Your task to perform on an android device: Where can I buy a nice beach cooler? Image 0: 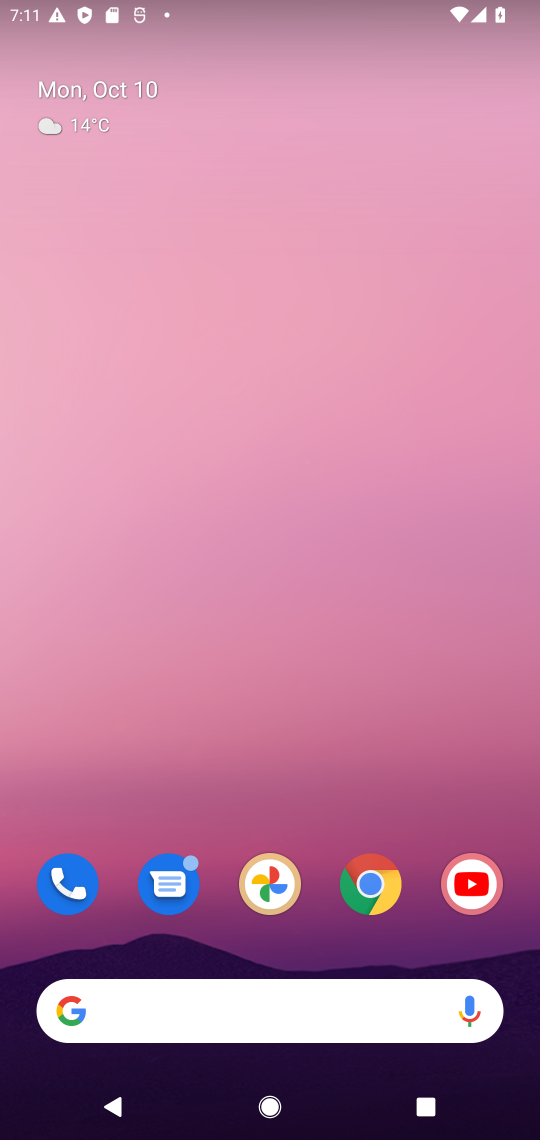
Step 0: click (342, 1005)
Your task to perform on an android device: Where can I buy a nice beach cooler? Image 1: 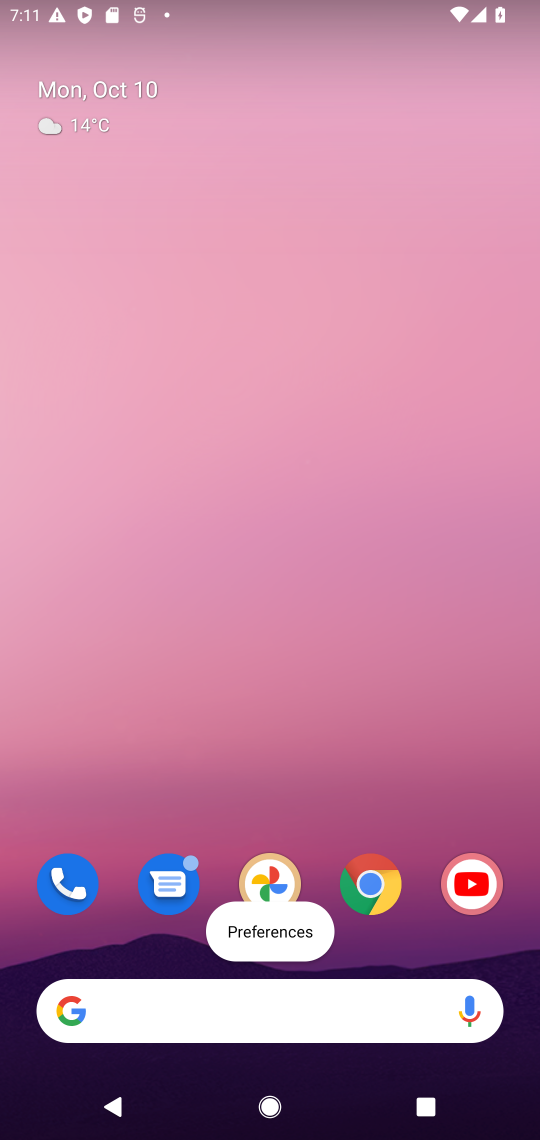
Step 1: drag from (302, 1052) to (305, 33)
Your task to perform on an android device: Where can I buy a nice beach cooler? Image 2: 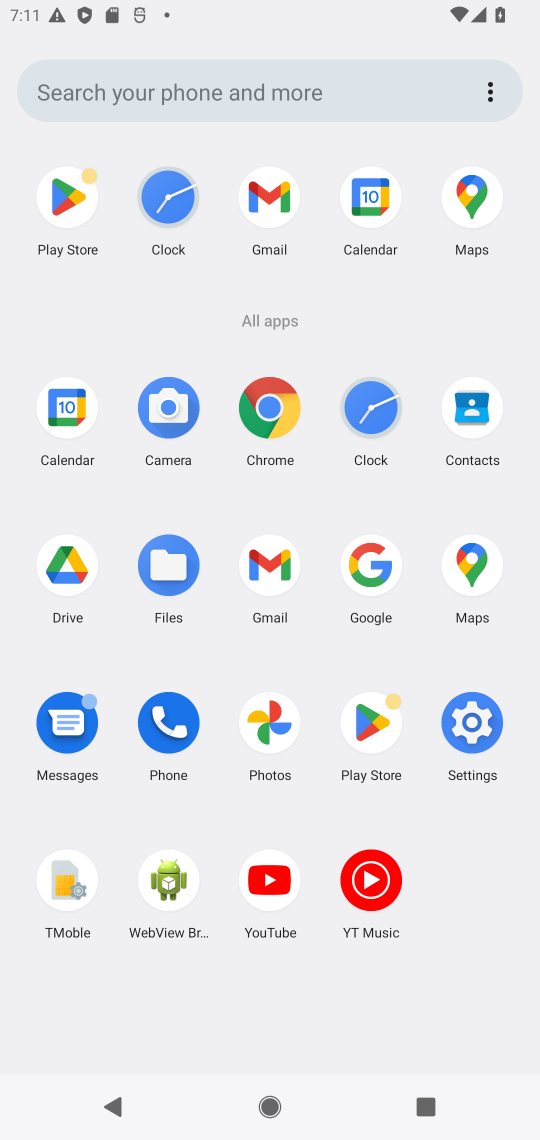
Step 2: click (243, 412)
Your task to perform on an android device: Where can I buy a nice beach cooler? Image 3: 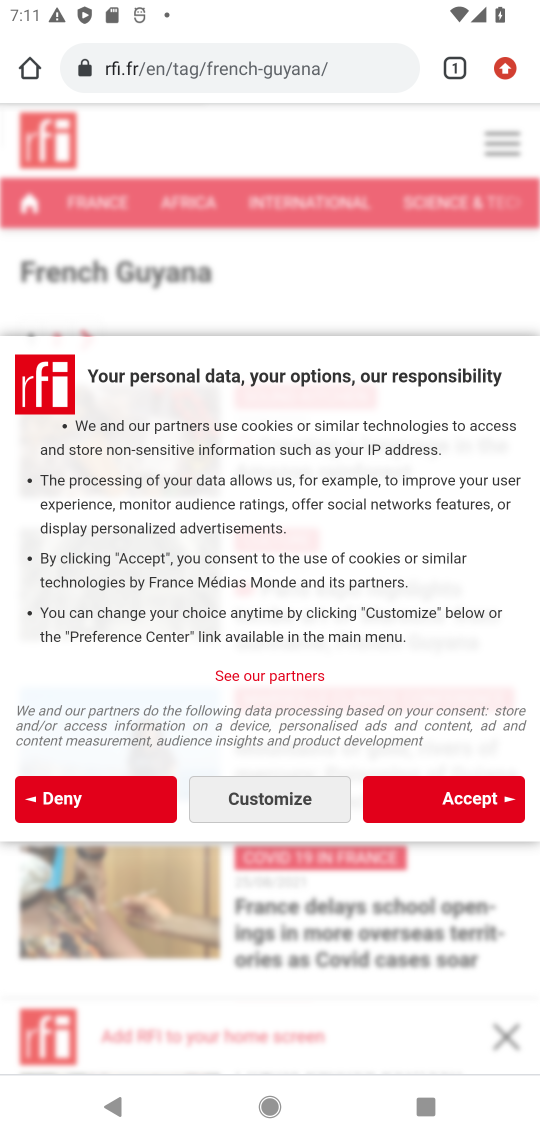
Step 3: click (213, 71)
Your task to perform on an android device: Where can I buy a nice beach cooler? Image 4: 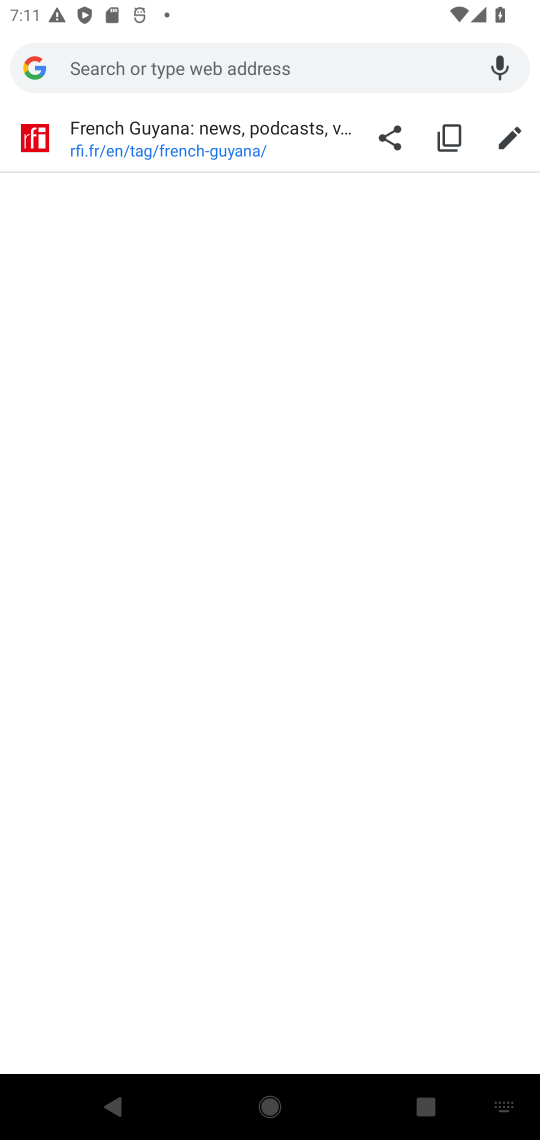
Step 4: type "Where can I buy a nice beach cooler?"
Your task to perform on an android device: Where can I buy a nice beach cooler? Image 5: 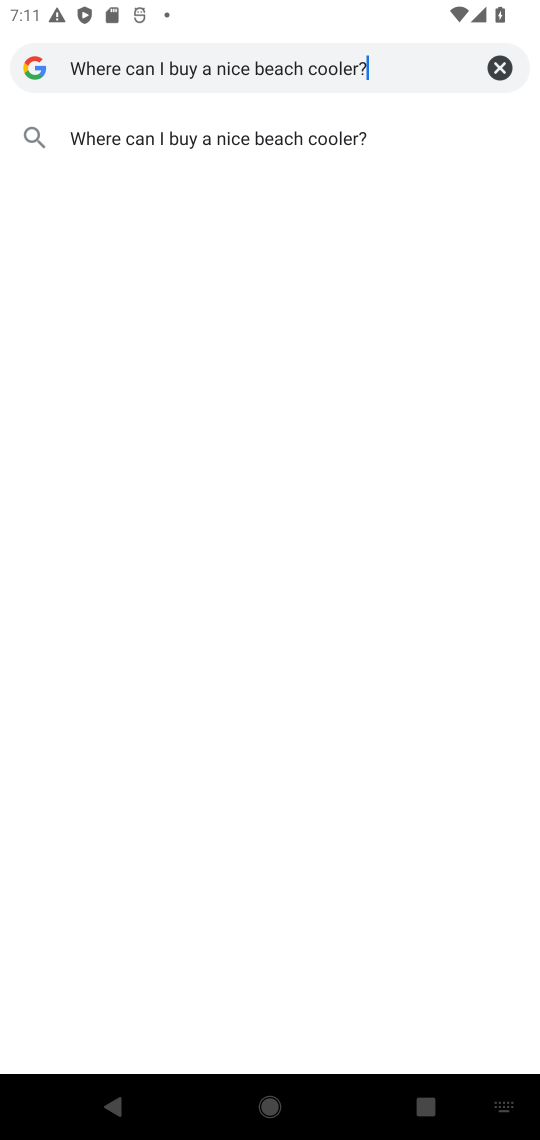
Step 5: type ""
Your task to perform on an android device: Where can I buy a nice beach cooler? Image 6: 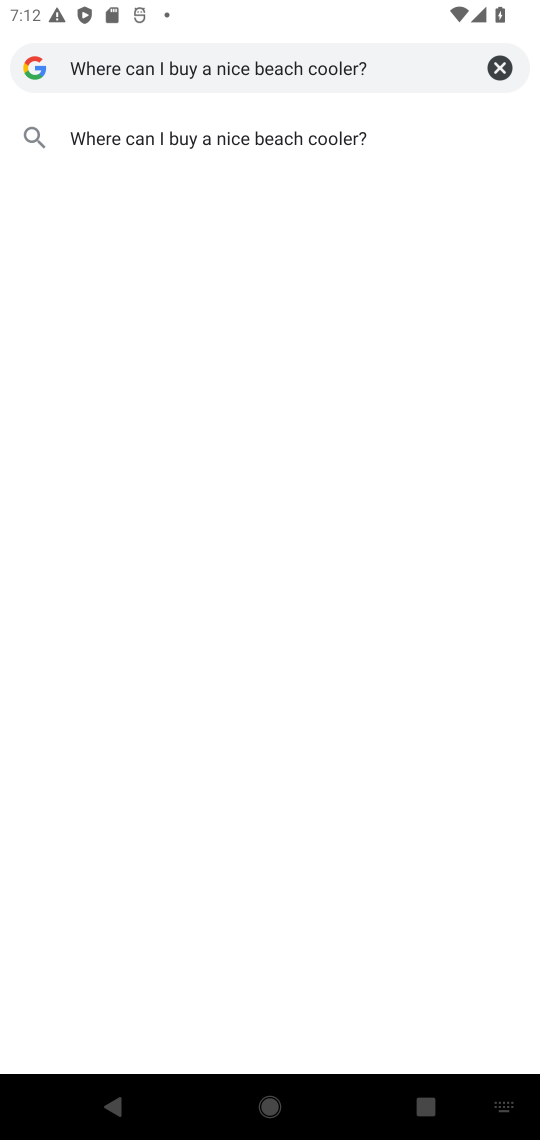
Step 6: click (277, 135)
Your task to perform on an android device: Where can I buy a nice beach cooler? Image 7: 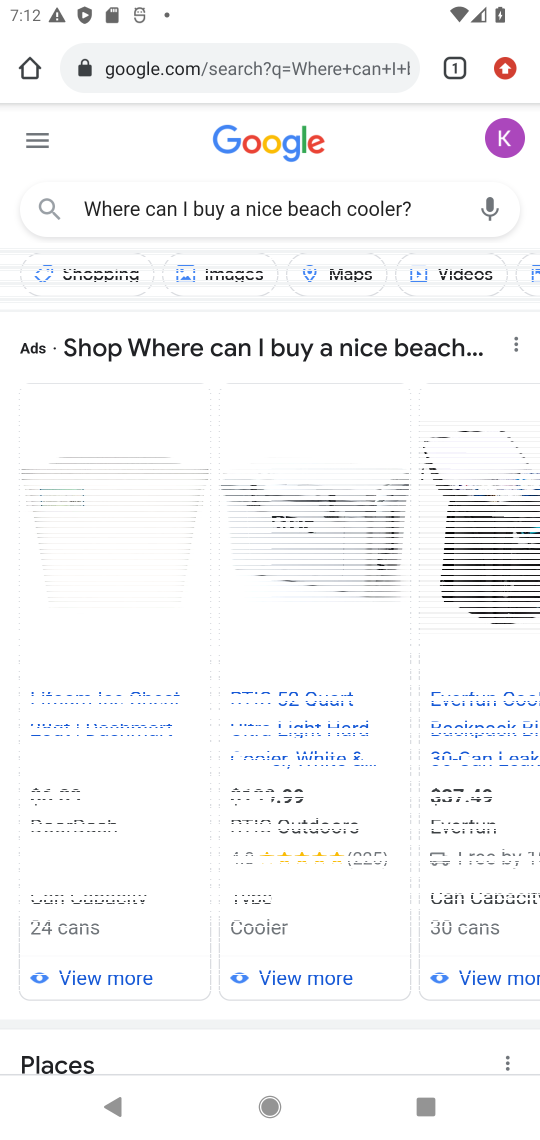
Step 7: drag from (192, 874) to (218, 431)
Your task to perform on an android device: Where can I buy a nice beach cooler? Image 8: 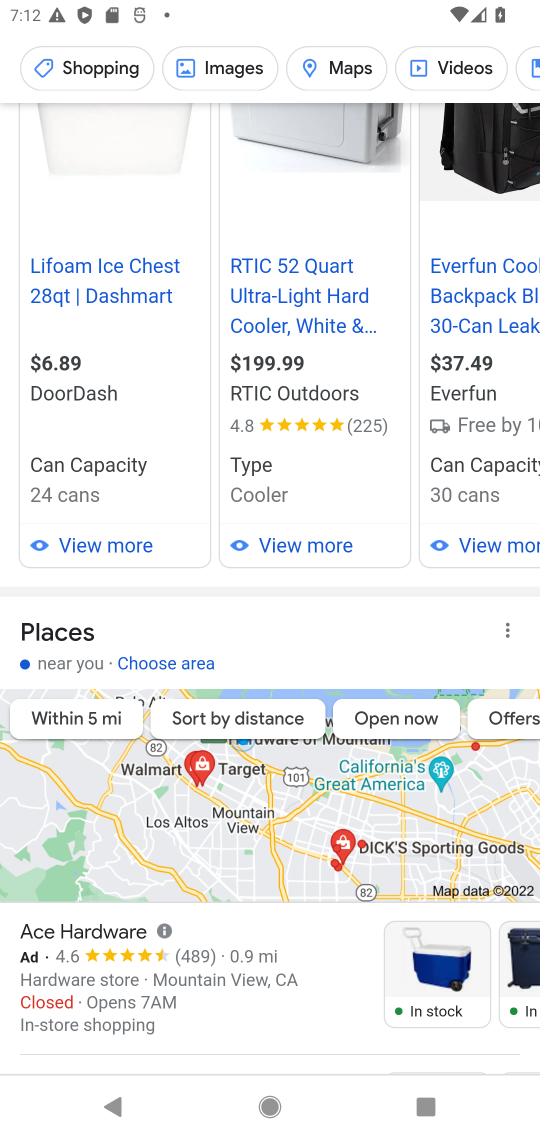
Step 8: drag from (222, 832) to (225, 416)
Your task to perform on an android device: Where can I buy a nice beach cooler? Image 9: 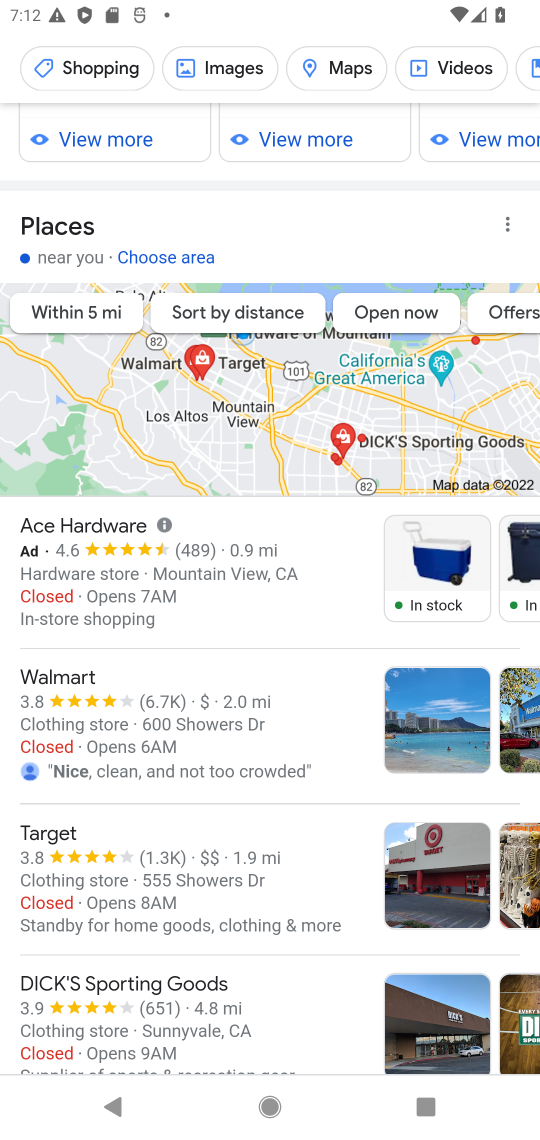
Step 9: drag from (130, 779) to (296, 144)
Your task to perform on an android device: Where can I buy a nice beach cooler? Image 10: 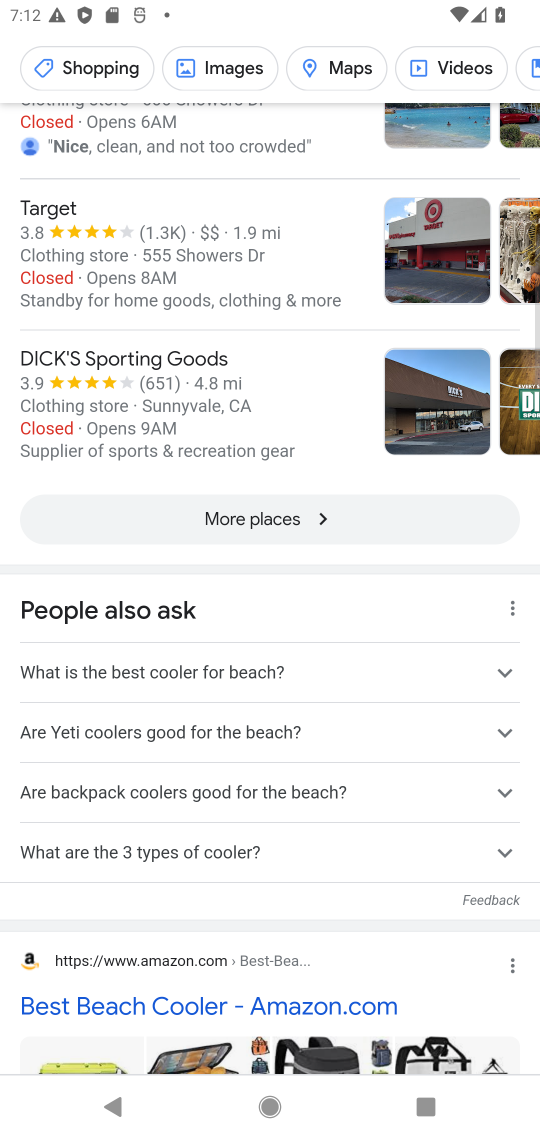
Step 10: drag from (258, 943) to (199, 443)
Your task to perform on an android device: Where can I buy a nice beach cooler? Image 11: 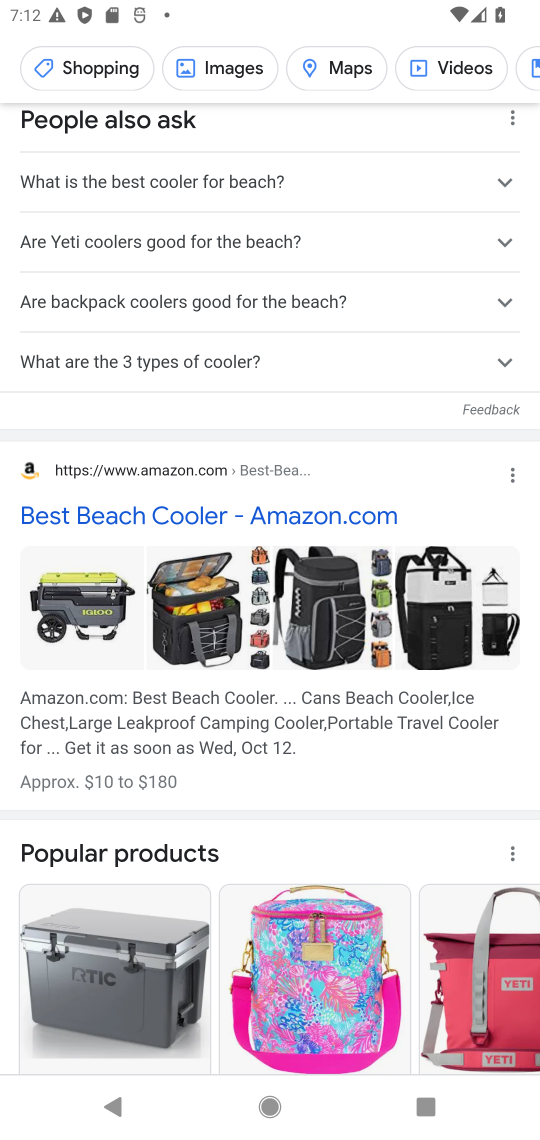
Step 11: drag from (240, 705) to (255, 296)
Your task to perform on an android device: Where can I buy a nice beach cooler? Image 12: 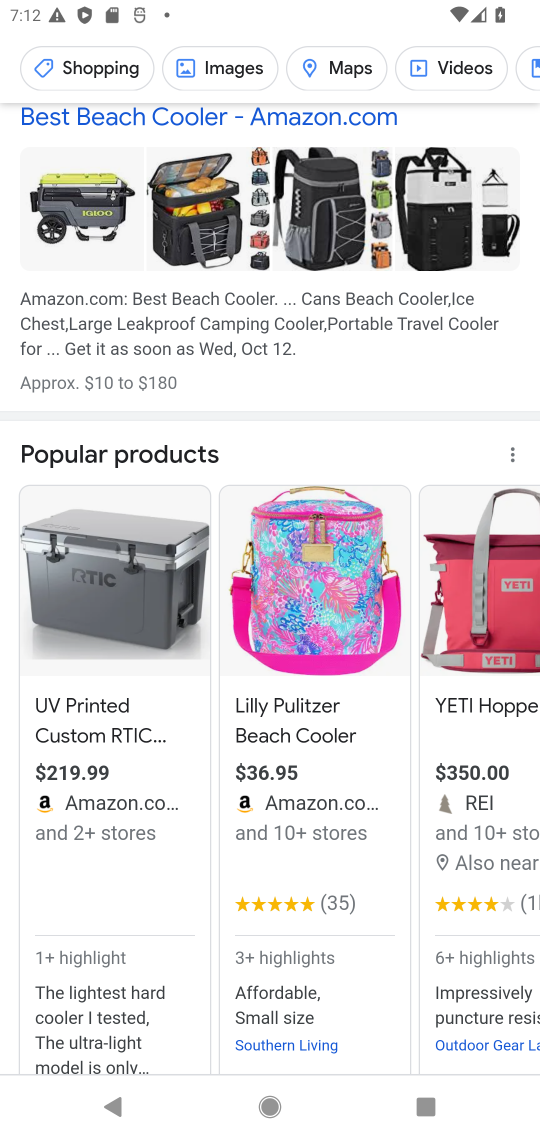
Step 12: click (107, 761)
Your task to perform on an android device: Where can I buy a nice beach cooler? Image 13: 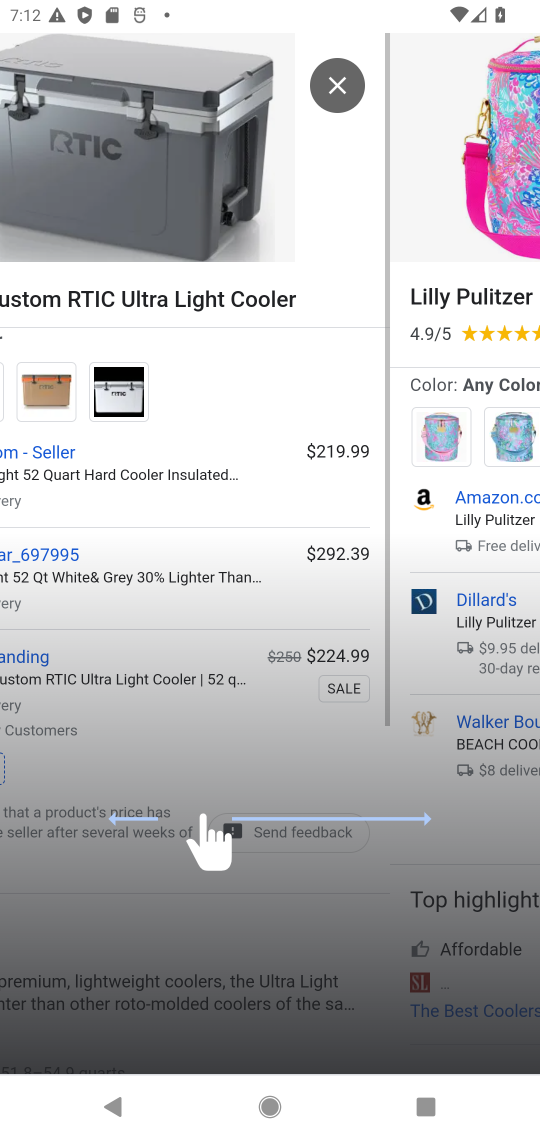
Step 13: drag from (432, 496) to (18, 505)
Your task to perform on an android device: Where can I buy a nice beach cooler? Image 14: 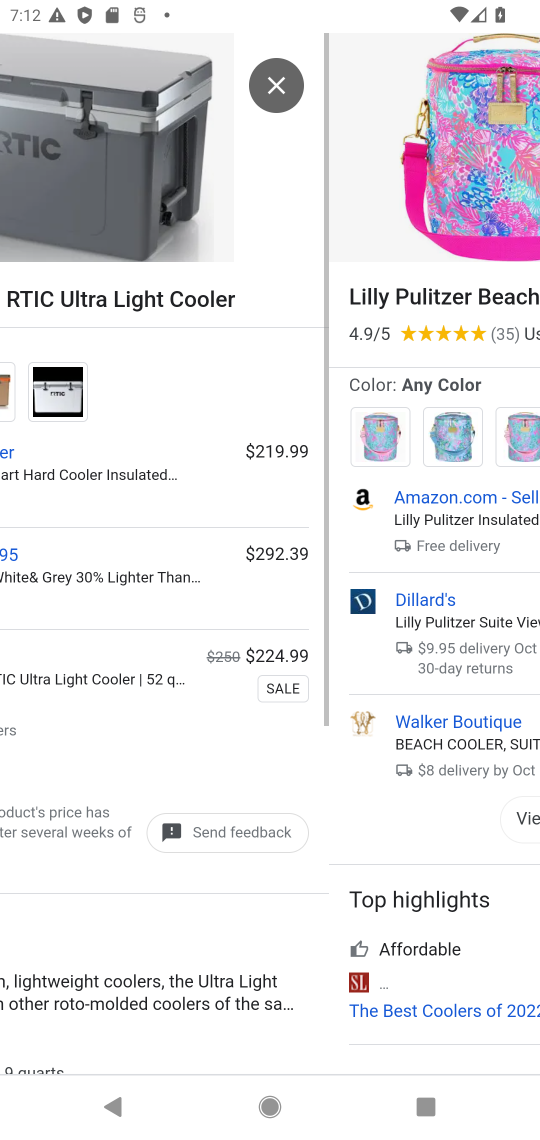
Step 14: drag from (380, 524) to (37, 515)
Your task to perform on an android device: Where can I buy a nice beach cooler? Image 15: 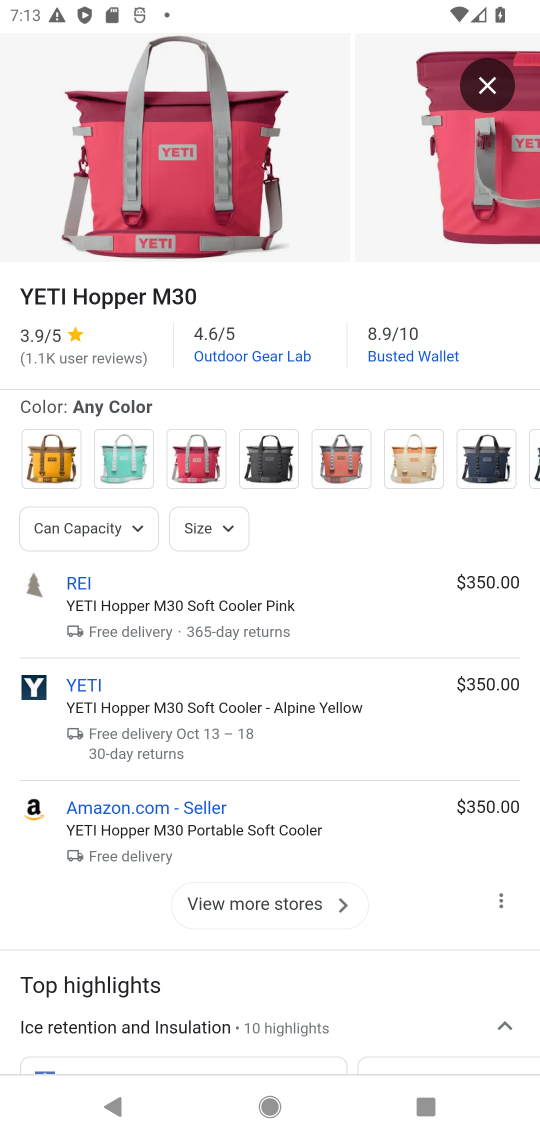
Step 15: drag from (286, 634) to (324, 228)
Your task to perform on an android device: Where can I buy a nice beach cooler? Image 16: 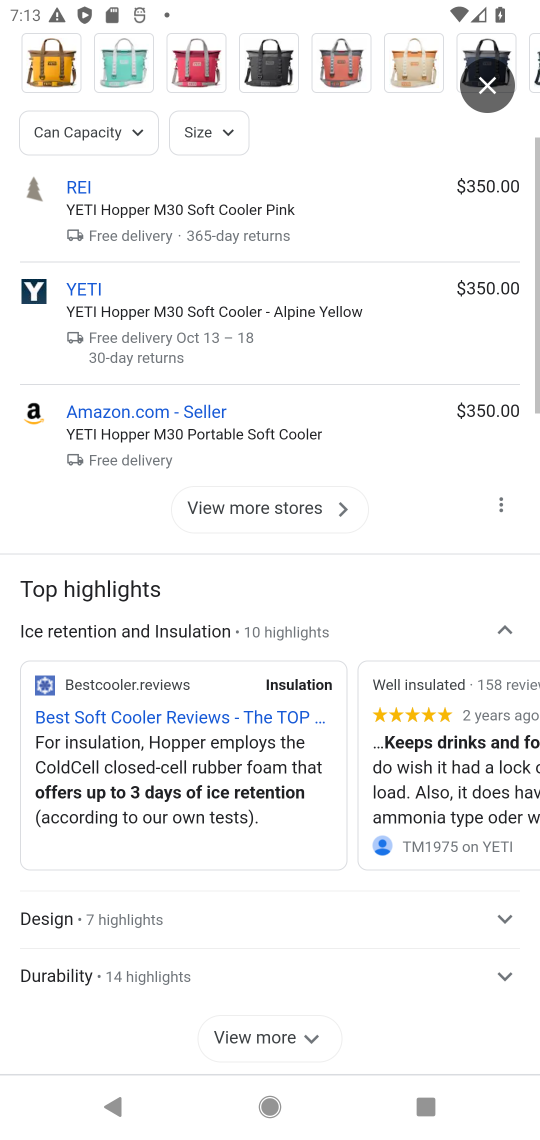
Step 16: drag from (297, 551) to (324, 127)
Your task to perform on an android device: Where can I buy a nice beach cooler? Image 17: 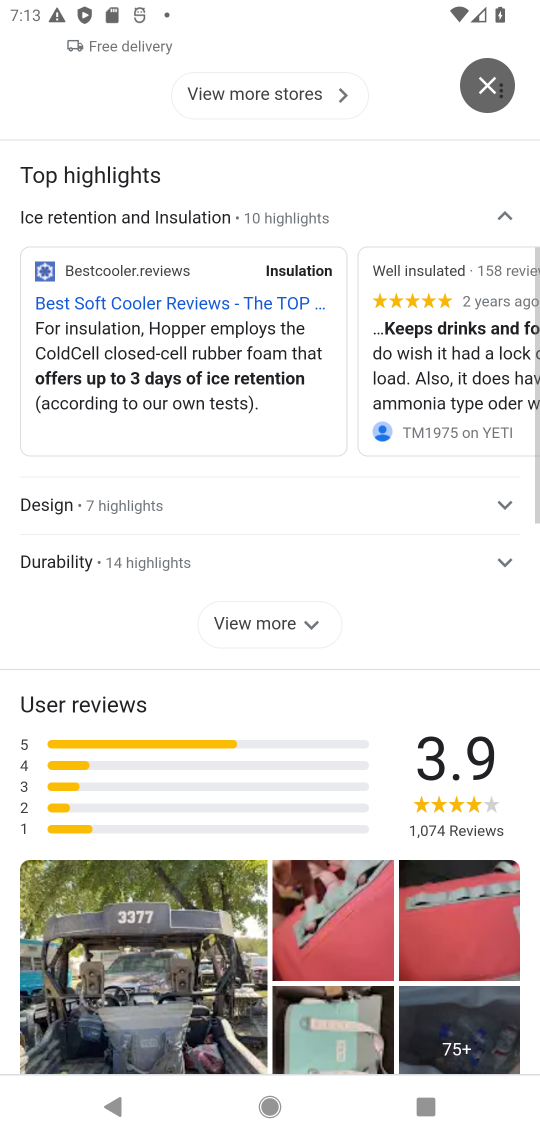
Step 17: drag from (353, 380) to (351, 217)
Your task to perform on an android device: Where can I buy a nice beach cooler? Image 18: 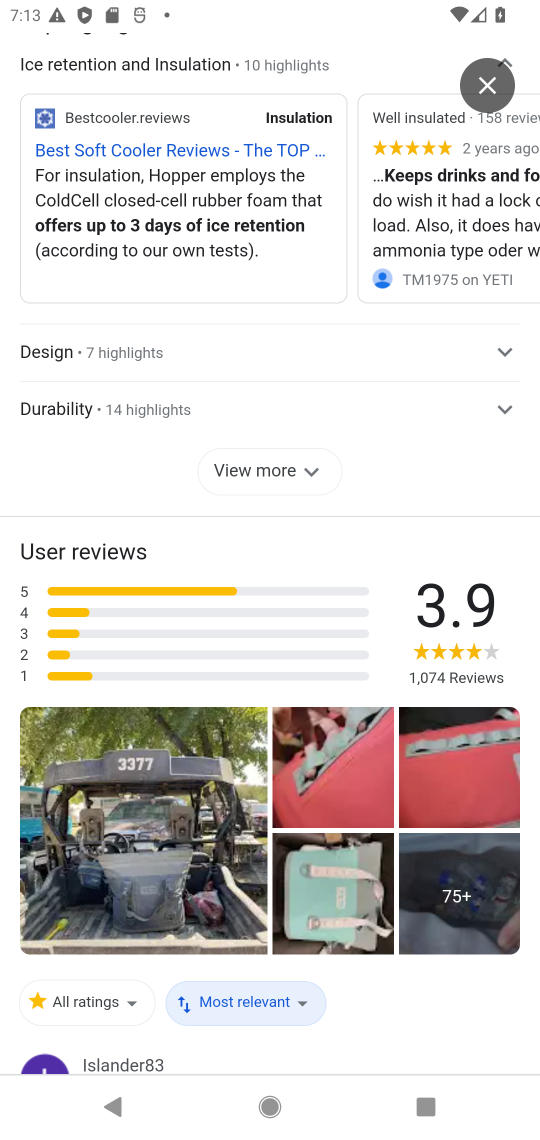
Step 18: drag from (288, 543) to (296, 371)
Your task to perform on an android device: Where can I buy a nice beach cooler? Image 19: 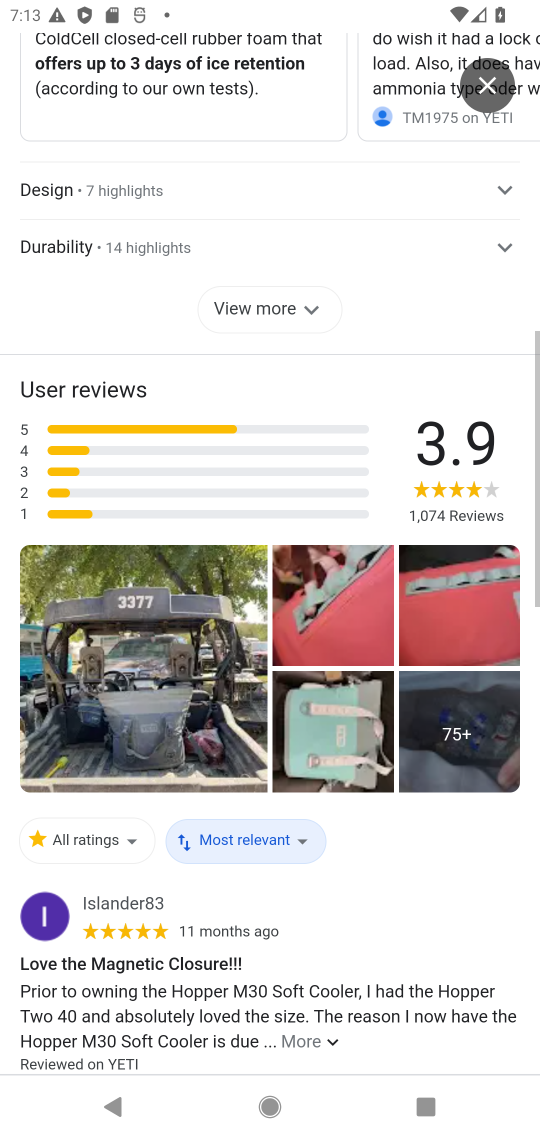
Step 19: drag from (337, 702) to (329, 341)
Your task to perform on an android device: Where can I buy a nice beach cooler? Image 20: 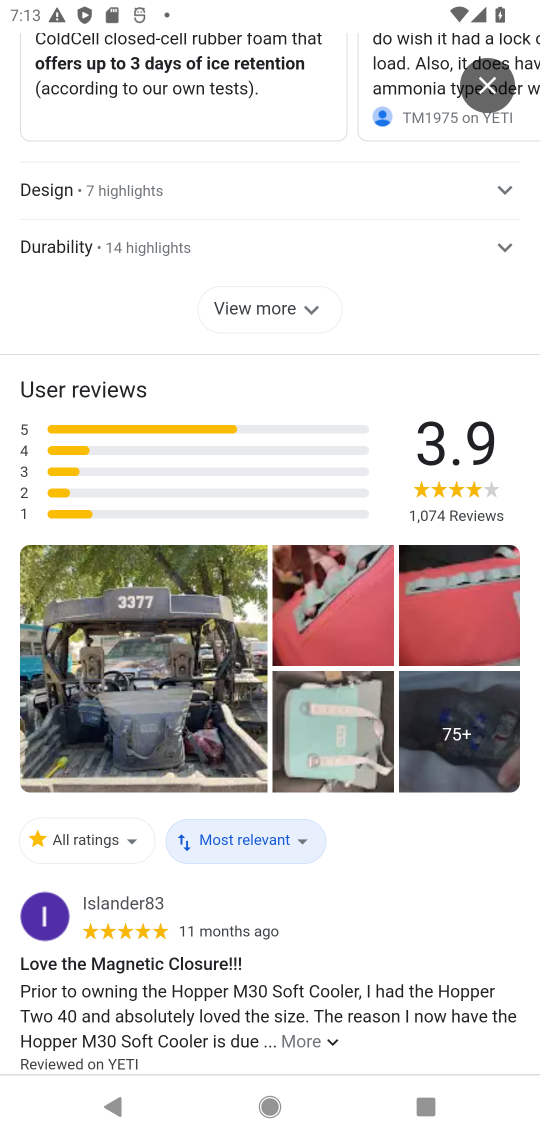
Step 20: drag from (326, 369) to (352, 259)
Your task to perform on an android device: Where can I buy a nice beach cooler? Image 21: 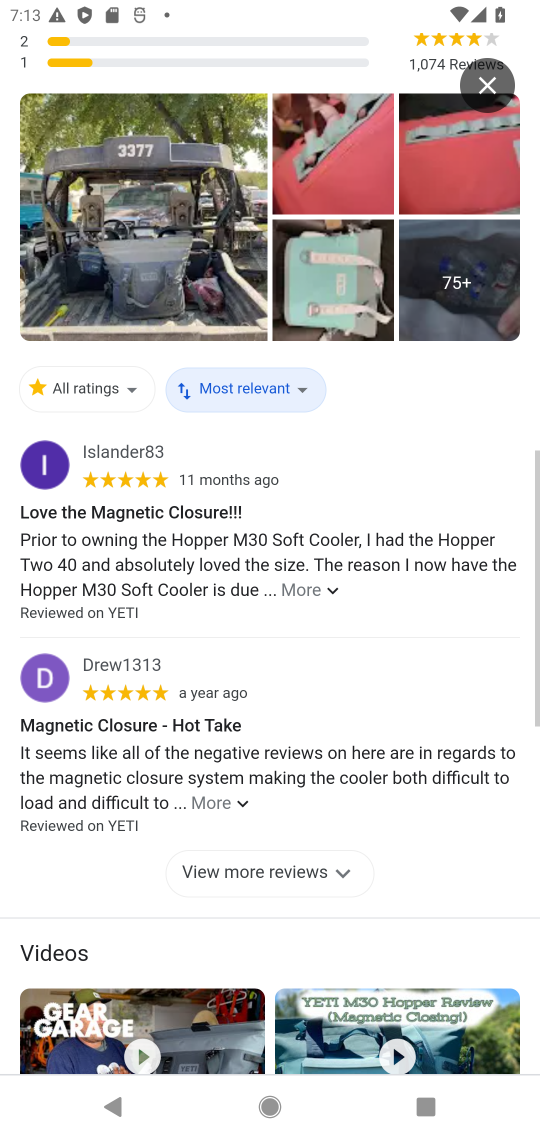
Step 21: click (480, 72)
Your task to perform on an android device: Where can I buy a nice beach cooler? Image 22: 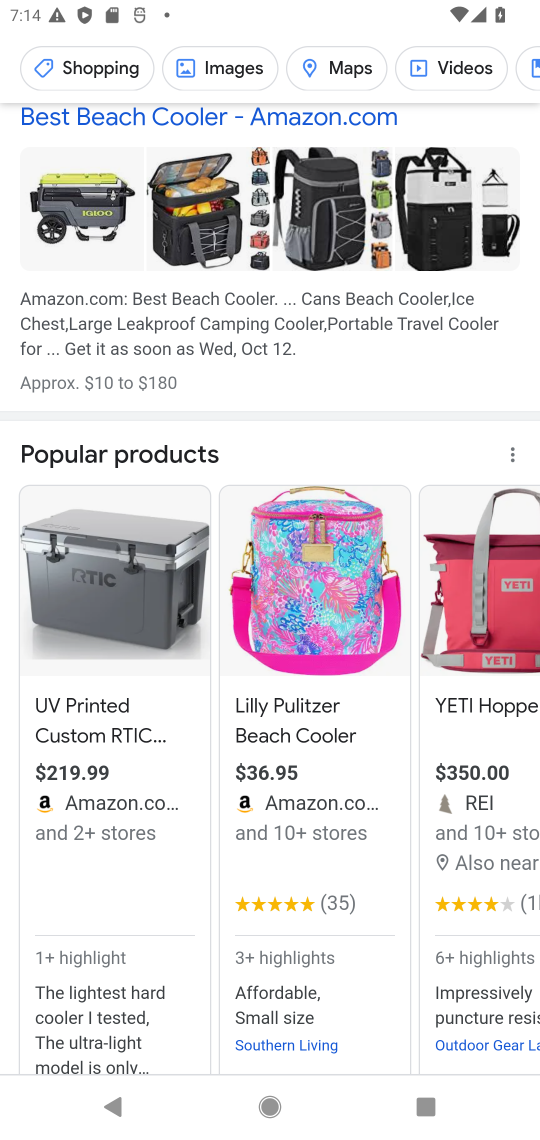
Step 22: task complete